Your task to perform on an android device: Go to Reddit.com Image 0: 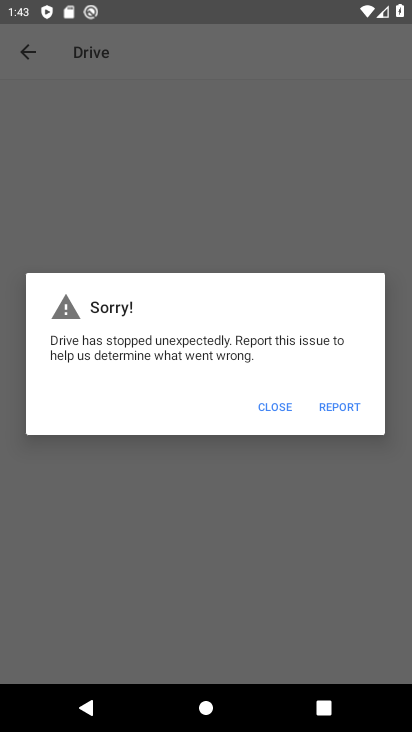
Step 0: press home button
Your task to perform on an android device: Go to Reddit.com Image 1: 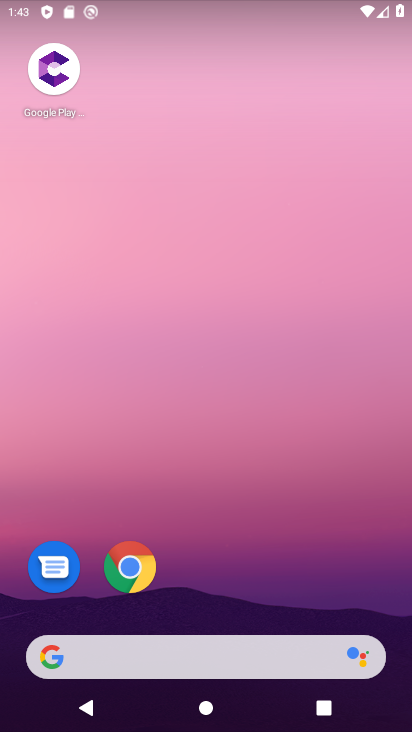
Step 1: click (130, 563)
Your task to perform on an android device: Go to Reddit.com Image 2: 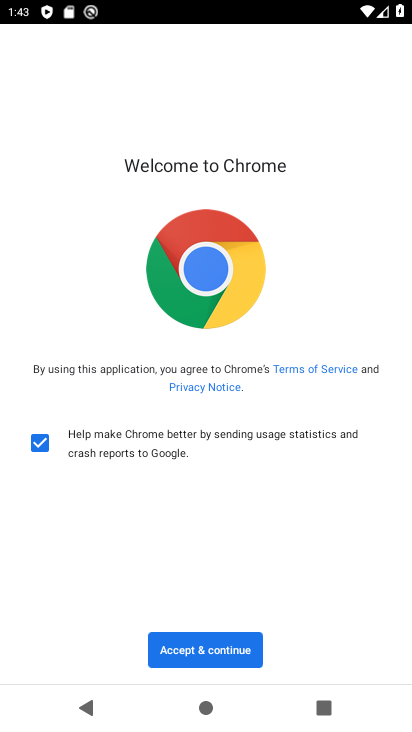
Step 2: click (208, 650)
Your task to perform on an android device: Go to Reddit.com Image 3: 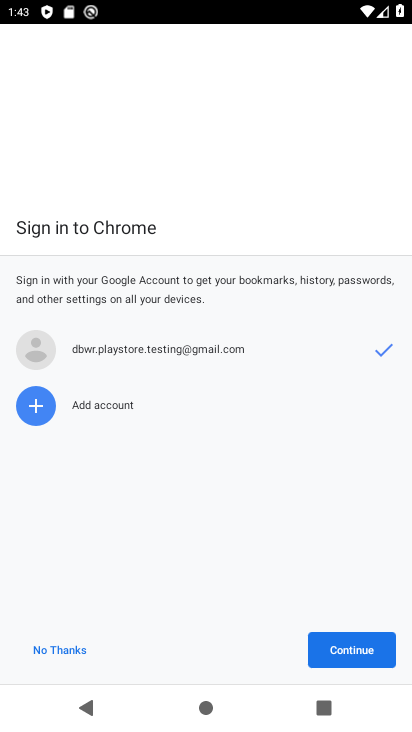
Step 3: click (318, 636)
Your task to perform on an android device: Go to Reddit.com Image 4: 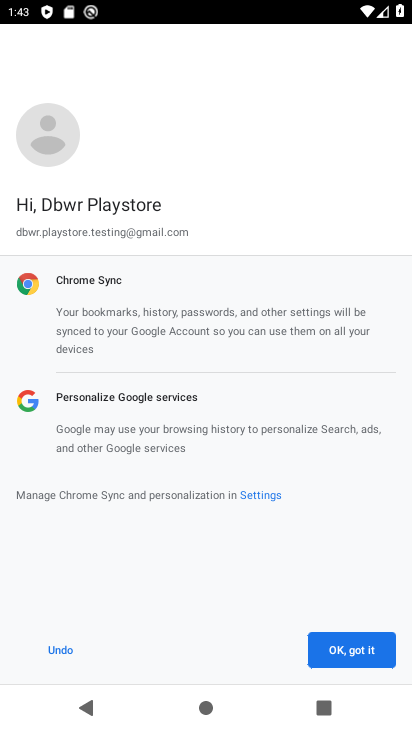
Step 4: click (318, 636)
Your task to perform on an android device: Go to Reddit.com Image 5: 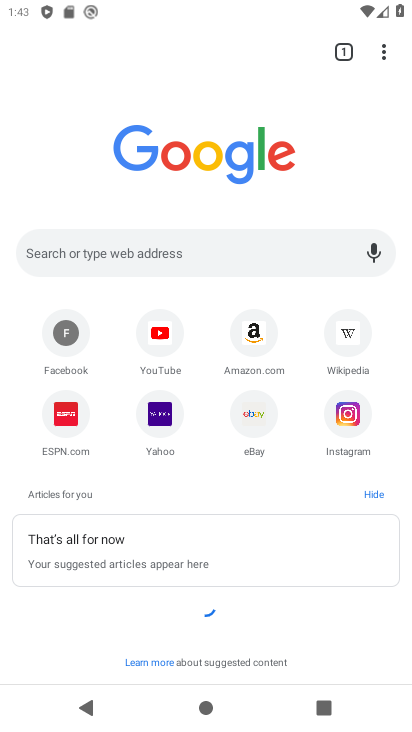
Step 5: click (174, 252)
Your task to perform on an android device: Go to Reddit.com Image 6: 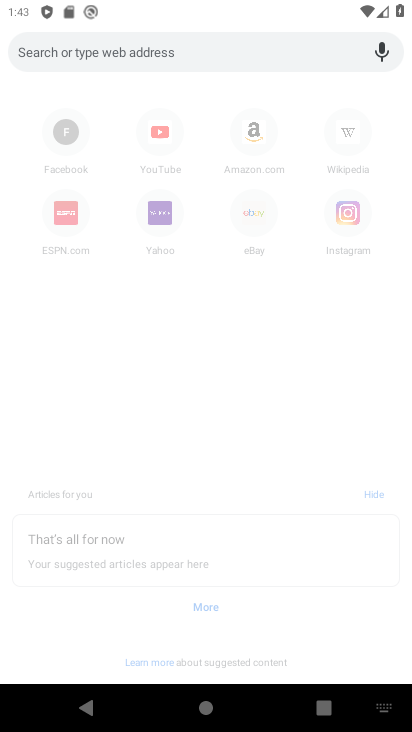
Step 6: type "Reddit.com"
Your task to perform on an android device: Go to Reddit.com Image 7: 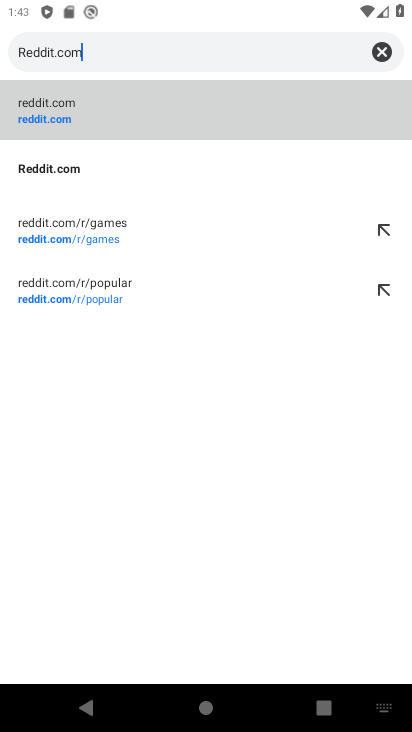
Step 7: click (68, 102)
Your task to perform on an android device: Go to Reddit.com Image 8: 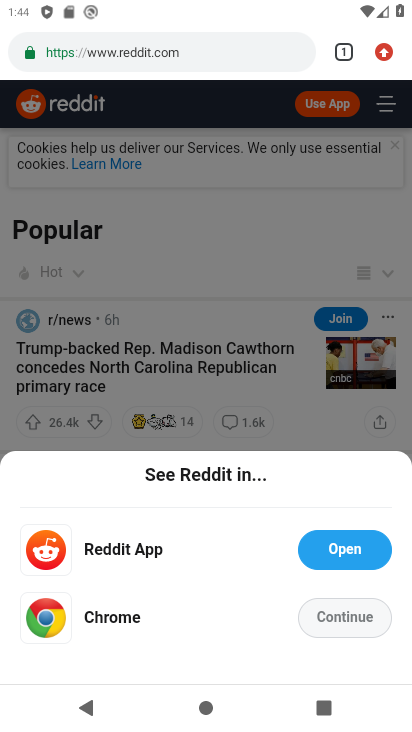
Step 8: task complete